Your task to perform on an android device: turn on bluetooth scan Image 0: 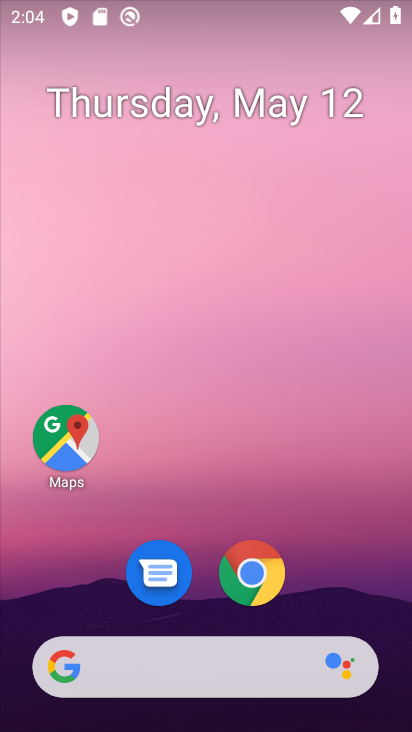
Step 0: click (220, 256)
Your task to perform on an android device: turn on bluetooth scan Image 1: 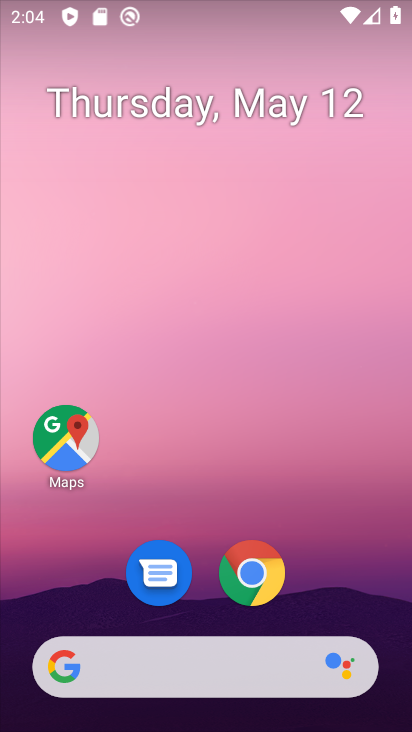
Step 1: drag from (219, 616) to (268, 271)
Your task to perform on an android device: turn on bluetooth scan Image 2: 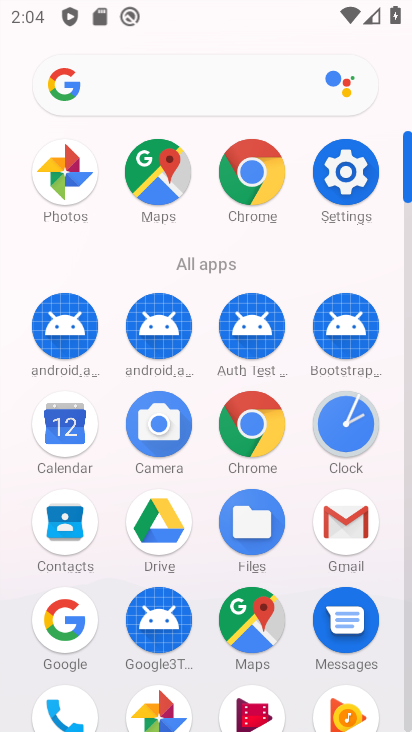
Step 2: click (347, 182)
Your task to perform on an android device: turn on bluetooth scan Image 3: 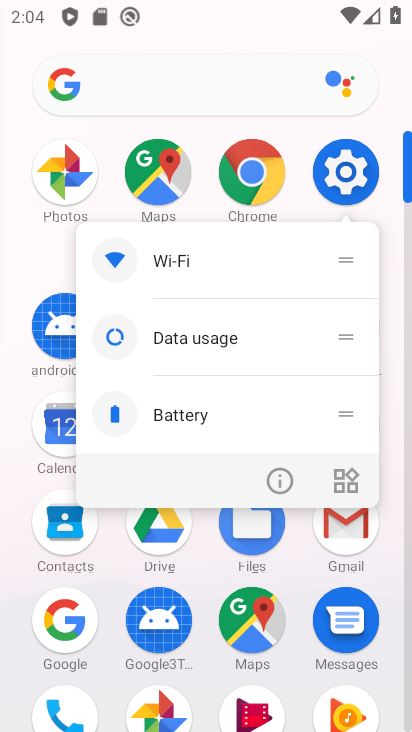
Step 3: click (281, 471)
Your task to perform on an android device: turn on bluetooth scan Image 4: 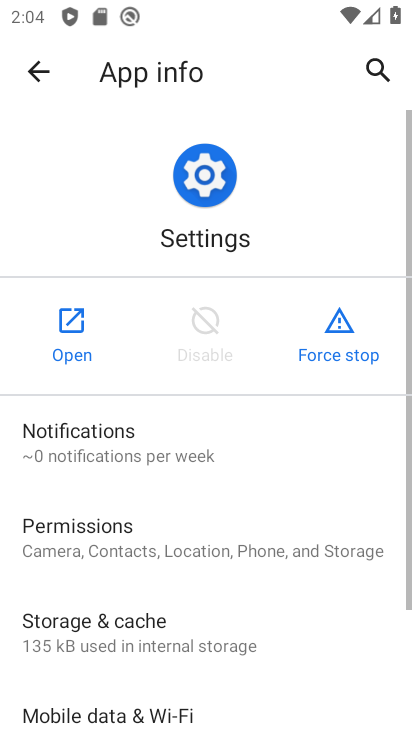
Step 4: click (71, 310)
Your task to perform on an android device: turn on bluetooth scan Image 5: 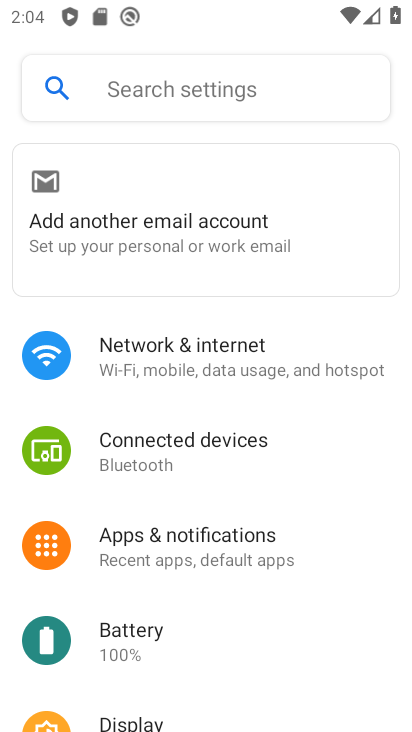
Step 5: click (128, 83)
Your task to perform on an android device: turn on bluetooth scan Image 6: 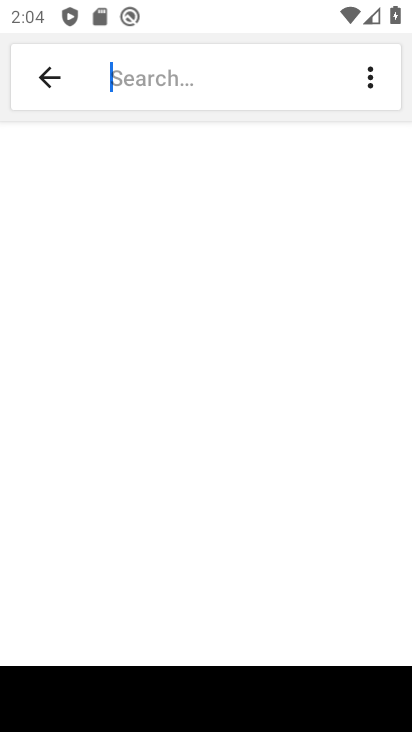
Step 6: type "bluetooth scan"
Your task to perform on an android device: turn on bluetooth scan Image 7: 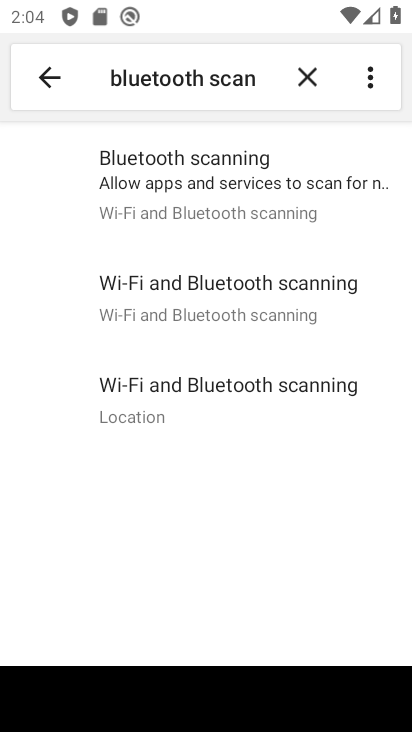
Step 7: drag from (263, 385) to (292, 73)
Your task to perform on an android device: turn on bluetooth scan Image 8: 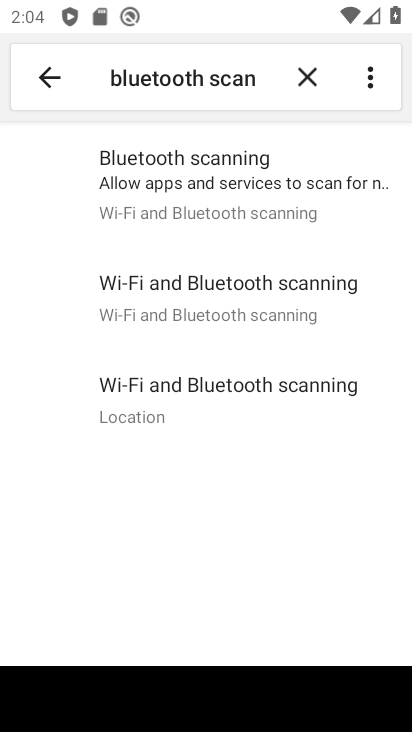
Step 8: click (211, 167)
Your task to perform on an android device: turn on bluetooth scan Image 9: 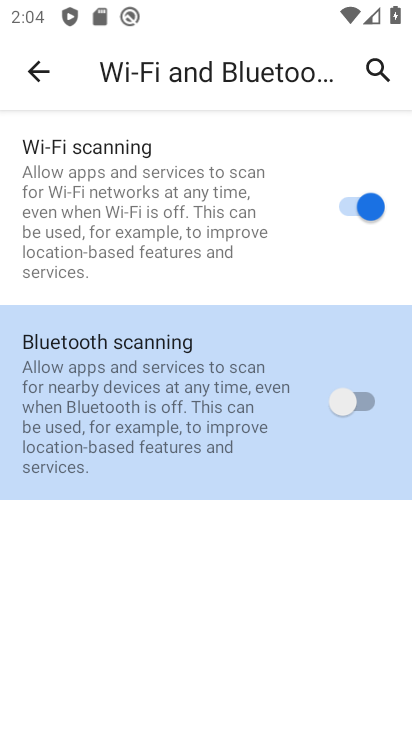
Step 9: click (340, 408)
Your task to perform on an android device: turn on bluetooth scan Image 10: 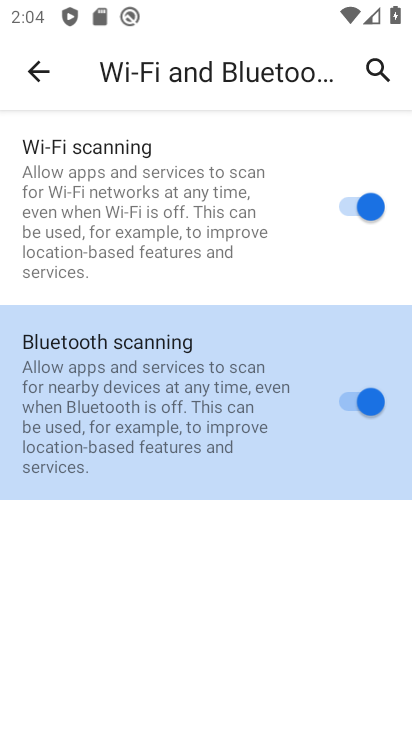
Step 10: task complete